Your task to perform on an android device: set the timer Image 0: 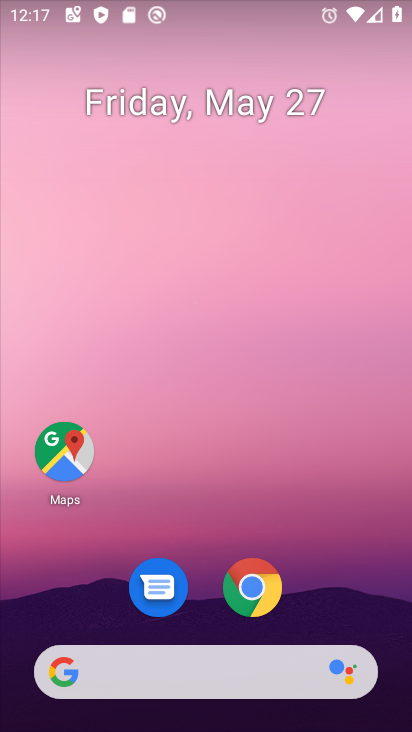
Step 0: drag from (234, 666) to (323, 157)
Your task to perform on an android device: set the timer Image 1: 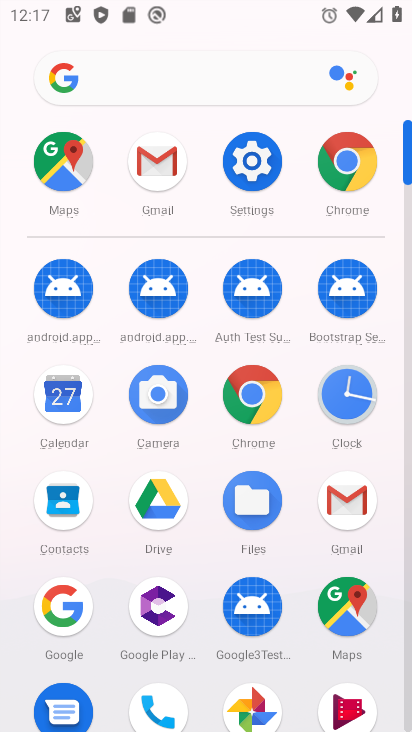
Step 1: click (337, 384)
Your task to perform on an android device: set the timer Image 2: 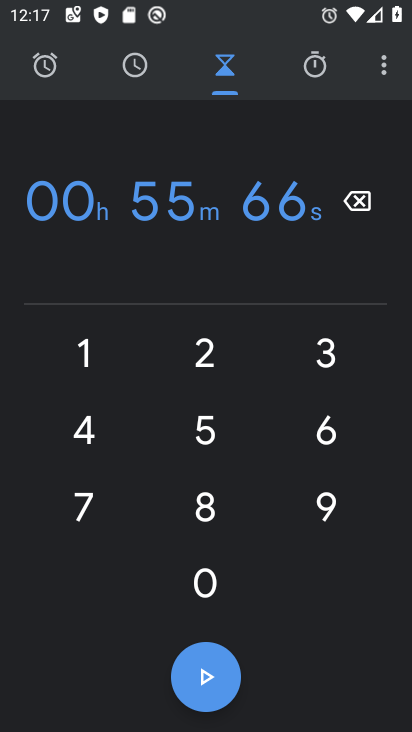
Step 2: click (277, 460)
Your task to perform on an android device: set the timer Image 3: 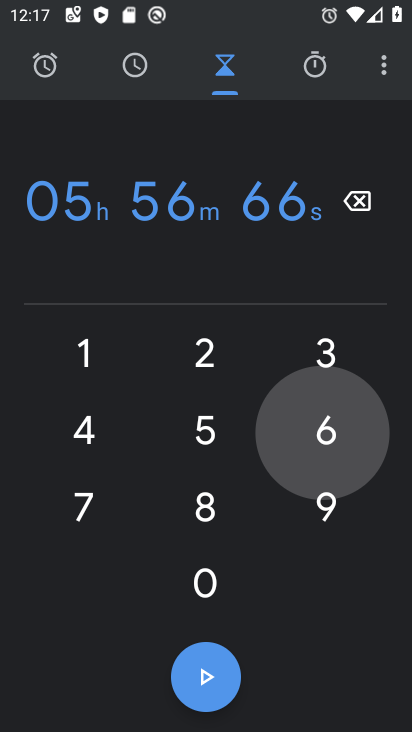
Step 3: click (143, 502)
Your task to perform on an android device: set the timer Image 4: 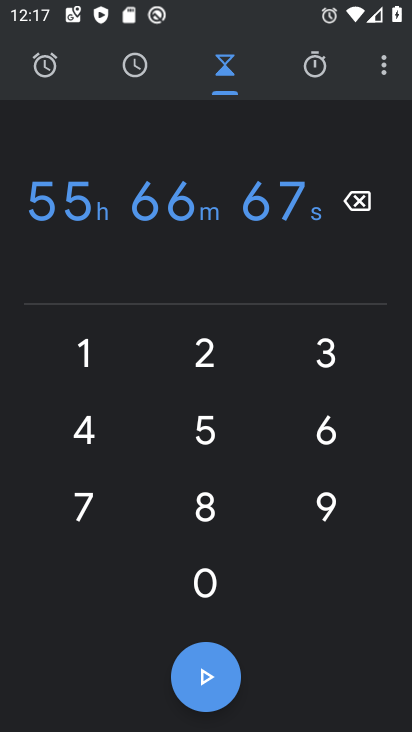
Step 4: task complete